Your task to perform on an android device: Show me productivity apps on the Play Store Image 0: 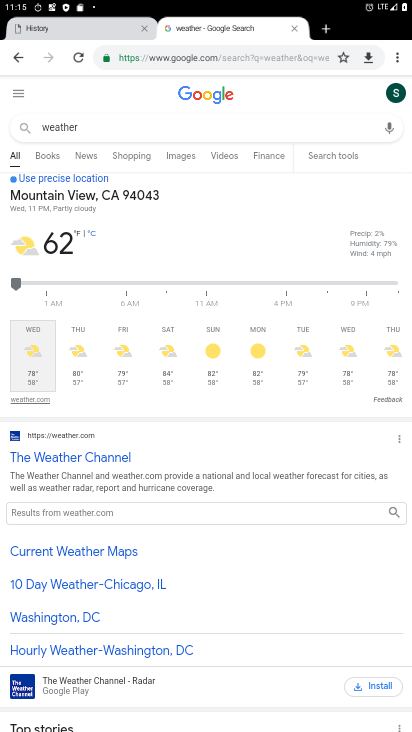
Step 0: press home button
Your task to perform on an android device: Show me productivity apps on the Play Store Image 1: 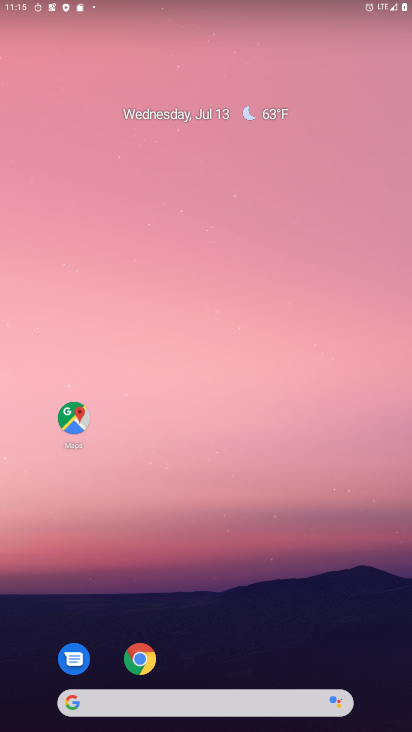
Step 1: drag from (254, 613) to (273, 29)
Your task to perform on an android device: Show me productivity apps on the Play Store Image 2: 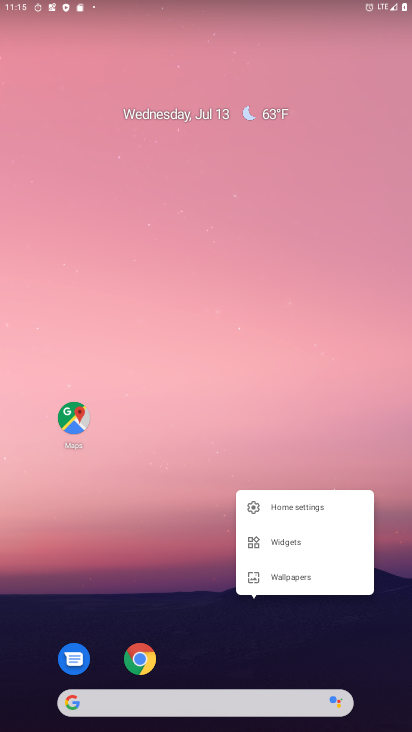
Step 2: click (138, 543)
Your task to perform on an android device: Show me productivity apps on the Play Store Image 3: 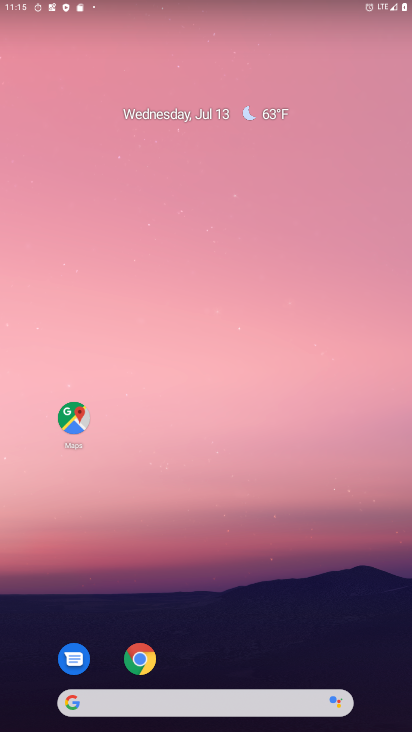
Step 3: drag from (164, 567) to (251, 95)
Your task to perform on an android device: Show me productivity apps on the Play Store Image 4: 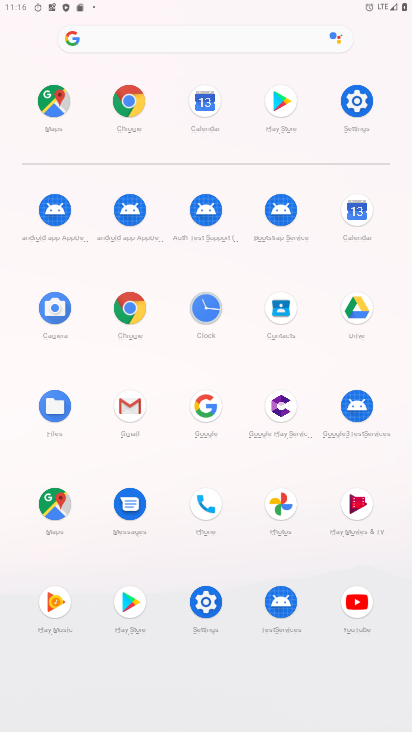
Step 4: click (295, 99)
Your task to perform on an android device: Show me productivity apps on the Play Store Image 5: 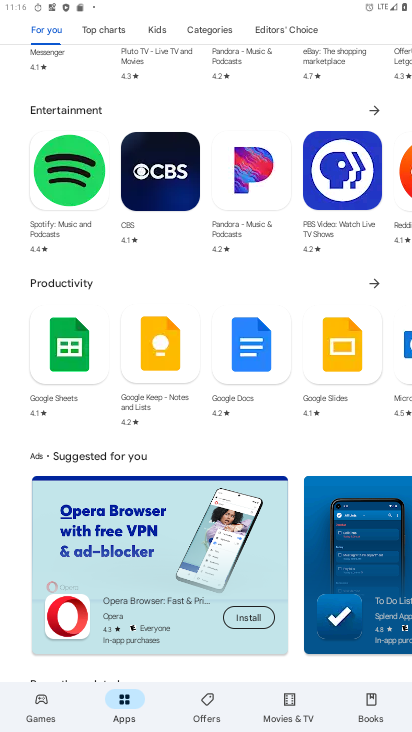
Step 5: task complete